Your task to perform on an android device: open sync settings in chrome Image 0: 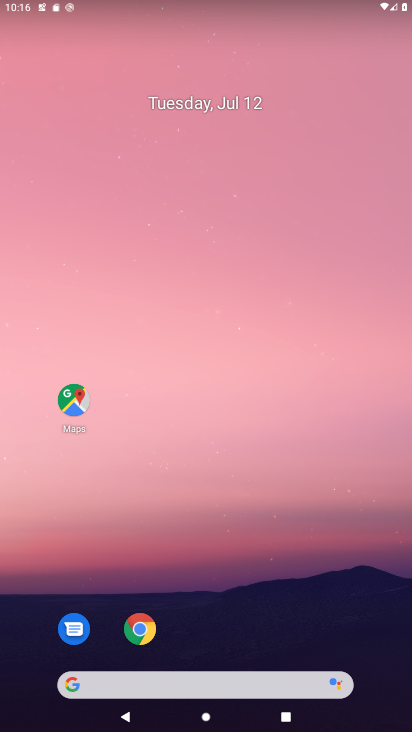
Step 0: drag from (307, 688) to (256, 19)
Your task to perform on an android device: open sync settings in chrome Image 1: 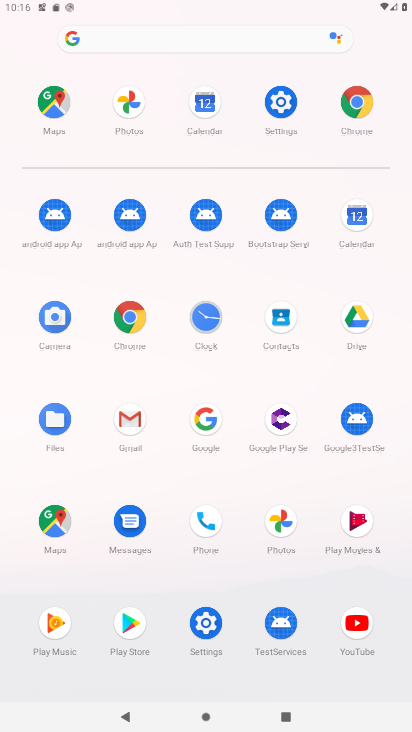
Step 1: click (119, 314)
Your task to perform on an android device: open sync settings in chrome Image 2: 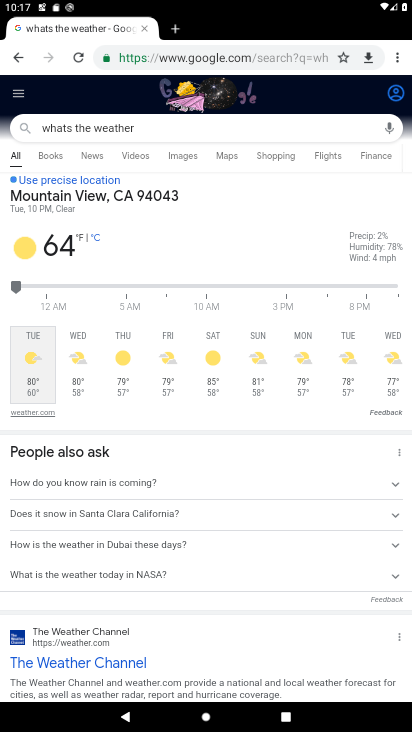
Step 2: drag from (397, 57) to (286, 340)
Your task to perform on an android device: open sync settings in chrome Image 3: 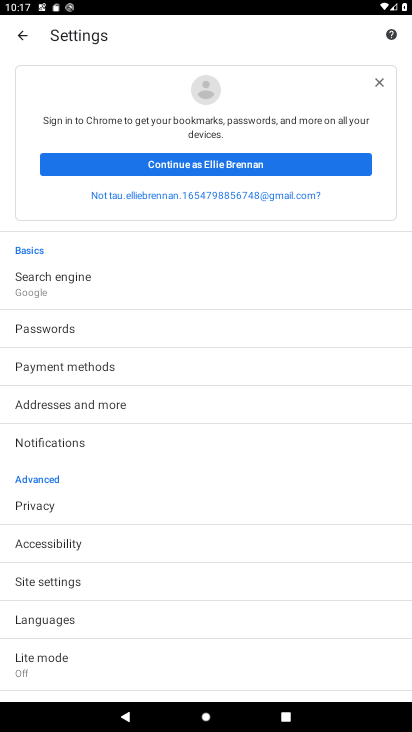
Step 3: click (92, 582)
Your task to perform on an android device: open sync settings in chrome Image 4: 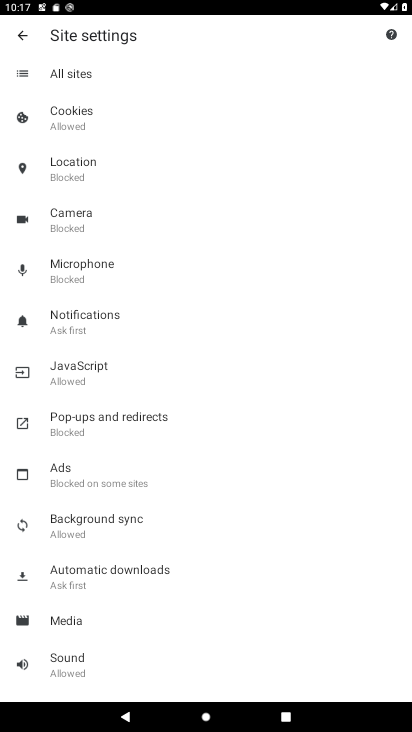
Step 4: click (102, 528)
Your task to perform on an android device: open sync settings in chrome Image 5: 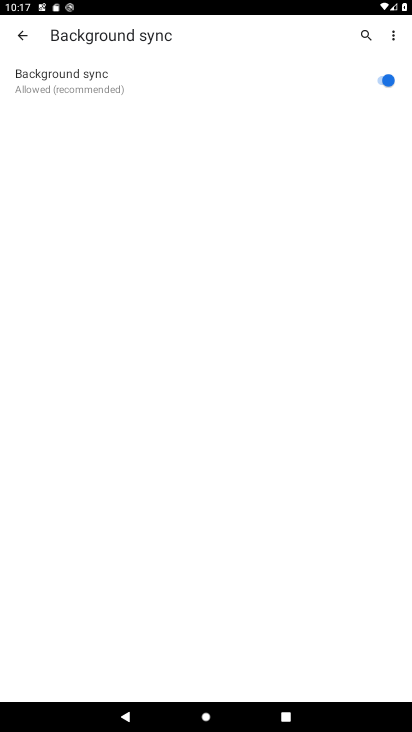
Step 5: task complete